Your task to perform on an android device: Go to ESPN.com Image 0: 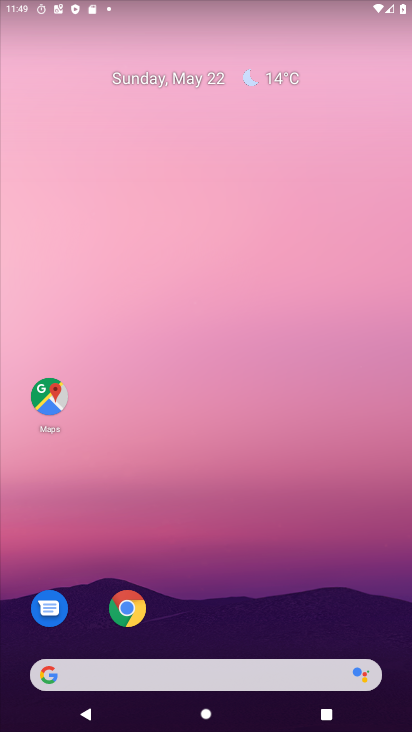
Step 0: click (130, 612)
Your task to perform on an android device: Go to ESPN.com Image 1: 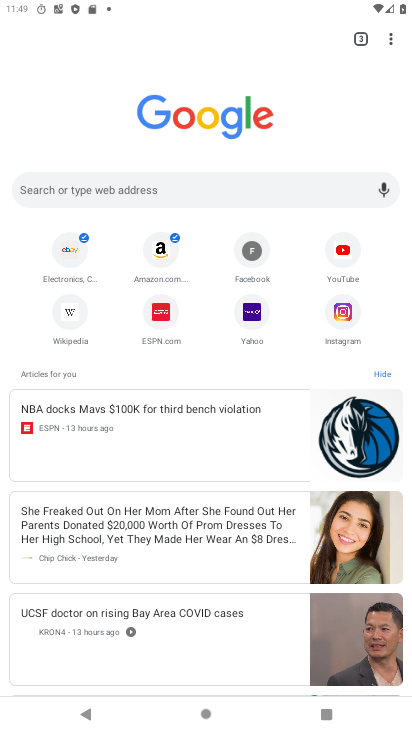
Step 1: click (152, 314)
Your task to perform on an android device: Go to ESPN.com Image 2: 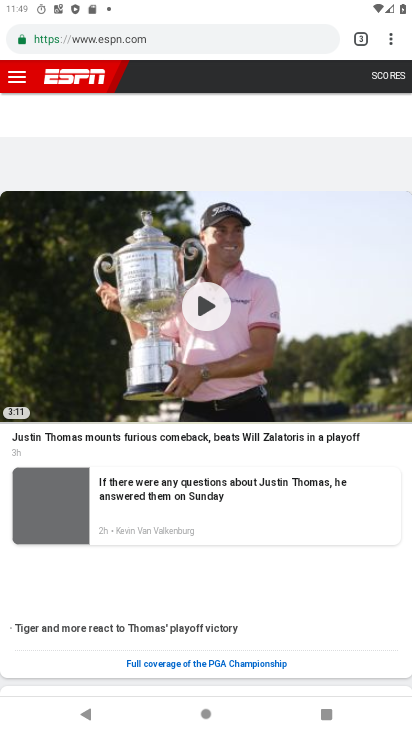
Step 2: task complete